Your task to perform on an android device: turn off data saver in the chrome app Image 0: 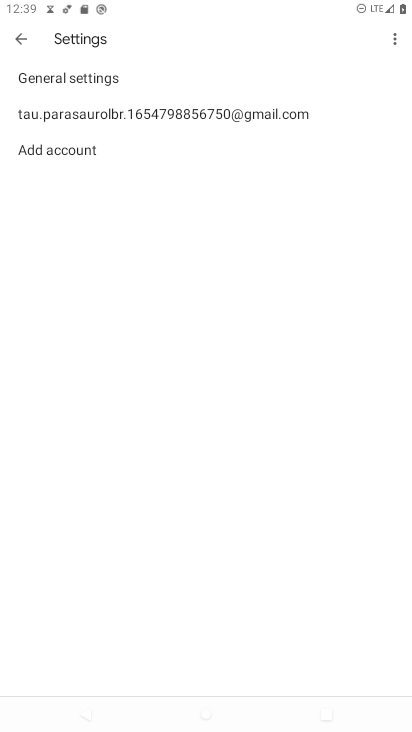
Step 0: press home button
Your task to perform on an android device: turn off data saver in the chrome app Image 1: 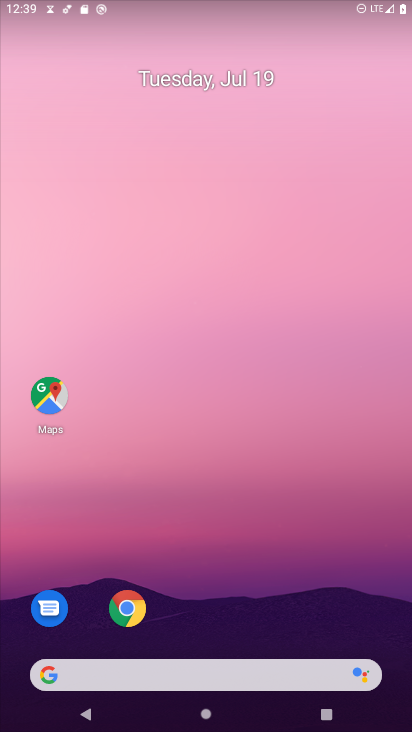
Step 1: drag from (271, 393) to (380, 5)
Your task to perform on an android device: turn off data saver in the chrome app Image 2: 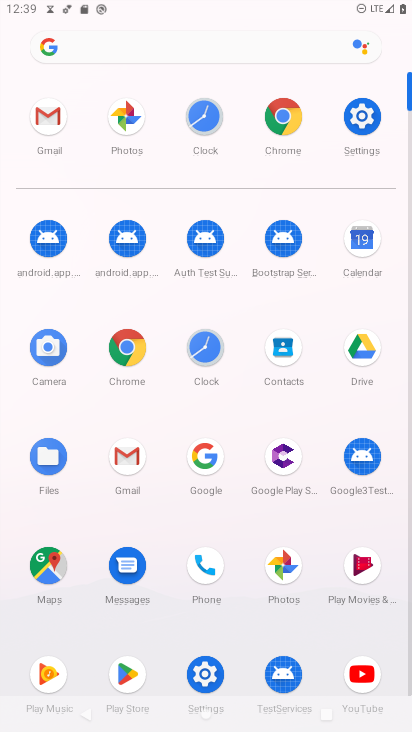
Step 2: click (277, 121)
Your task to perform on an android device: turn off data saver in the chrome app Image 3: 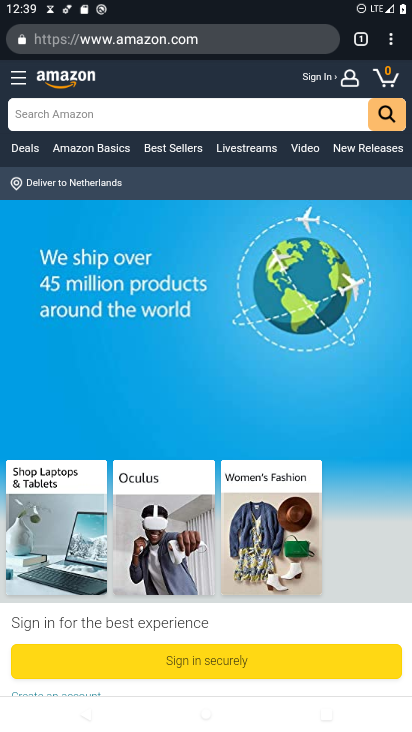
Step 3: drag from (394, 42) to (311, 436)
Your task to perform on an android device: turn off data saver in the chrome app Image 4: 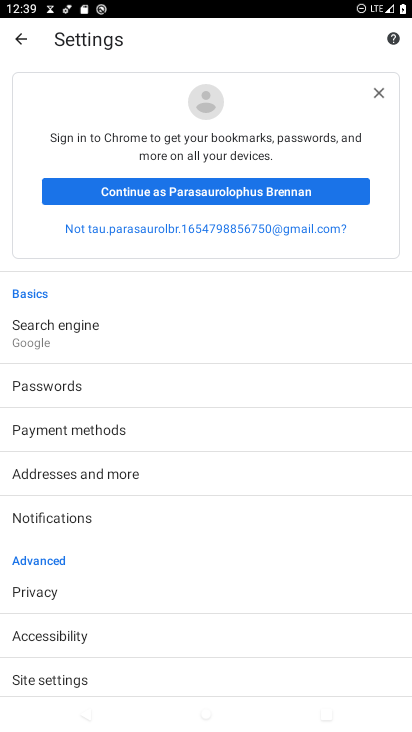
Step 4: drag from (195, 666) to (246, 487)
Your task to perform on an android device: turn off data saver in the chrome app Image 5: 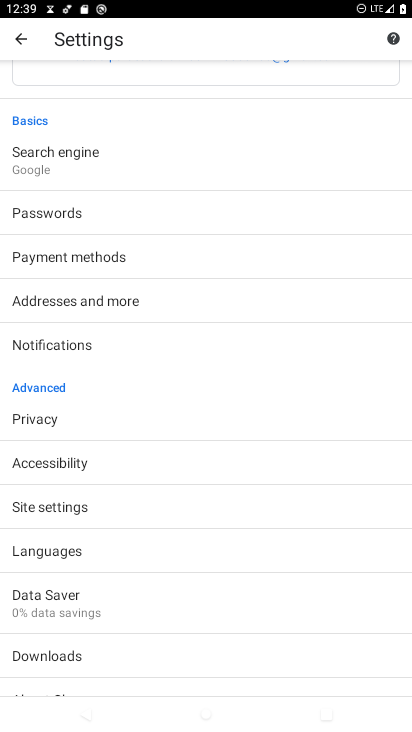
Step 5: click (184, 617)
Your task to perform on an android device: turn off data saver in the chrome app Image 6: 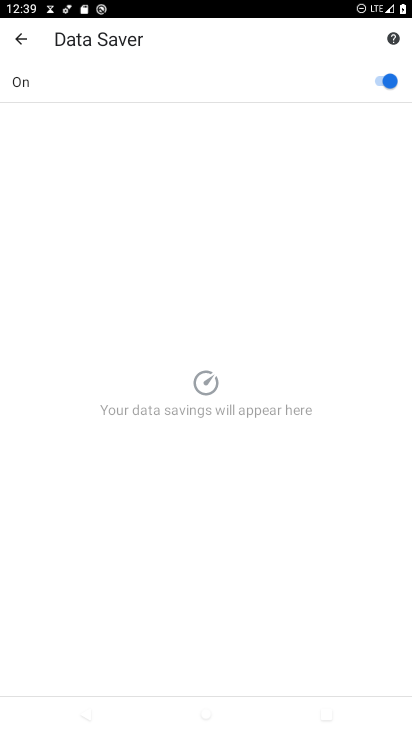
Step 6: click (378, 74)
Your task to perform on an android device: turn off data saver in the chrome app Image 7: 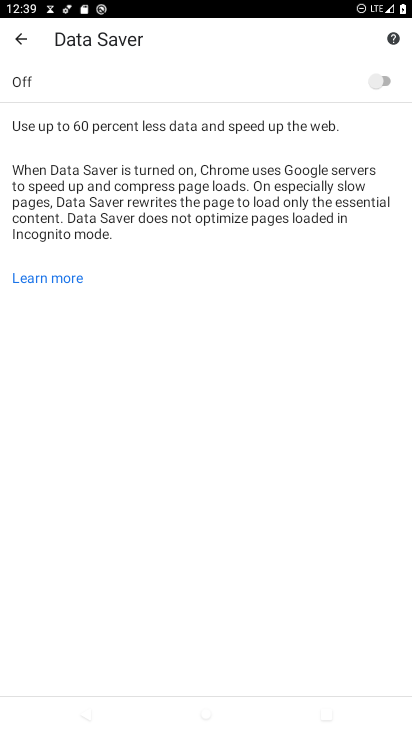
Step 7: task complete